Your task to perform on an android device: open app "Google Find My Device" Image 0: 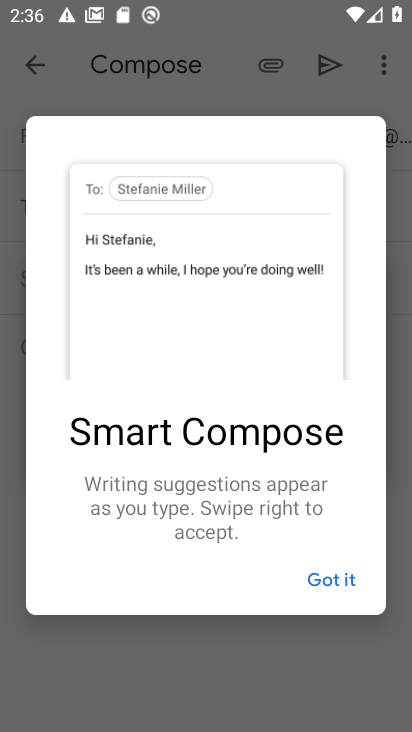
Step 0: press back button
Your task to perform on an android device: open app "Google Find My Device" Image 1: 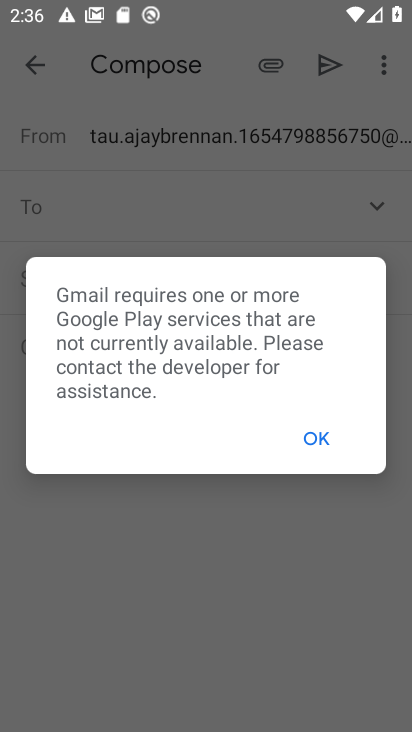
Step 1: press home button
Your task to perform on an android device: open app "Google Find My Device" Image 2: 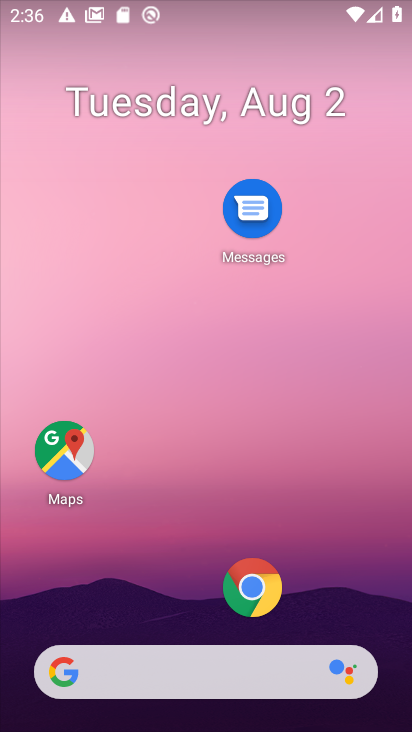
Step 2: drag from (168, 614) to (171, 211)
Your task to perform on an android device: open app "Google Find My Device" Image 3: 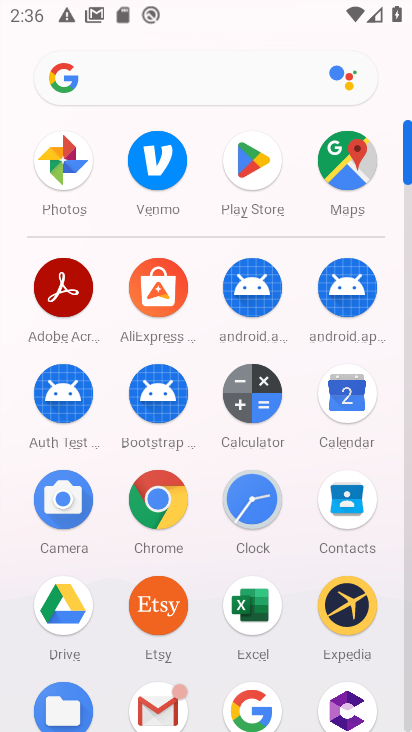
Step 3: click (259, 166)
Your task to perform on an android device: open app "Google Find My Device" Image 4: 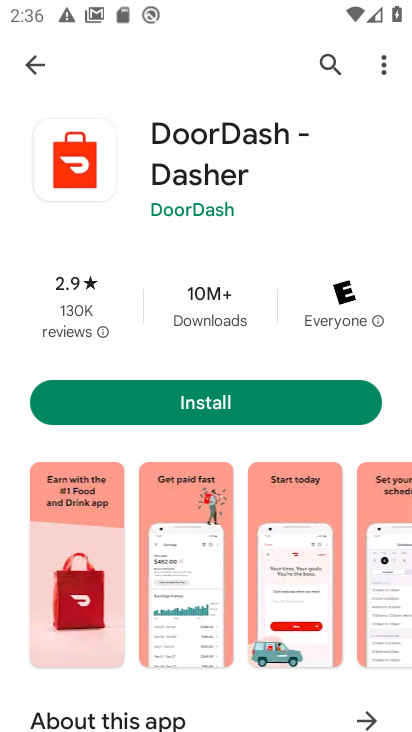
Step 4: click (329, 62)
Your task to perform on an android device: open app "Google Find My Device" Image 5: 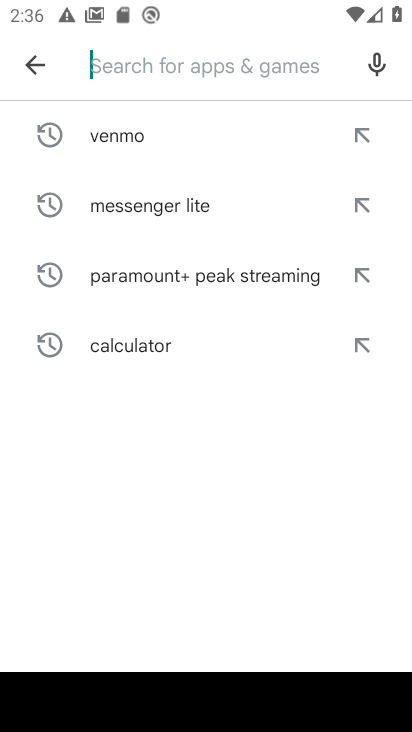
Step 5: type "Google Find My Device"
Your task to perform on an android device: open app "Google Find My Device" Image 6: 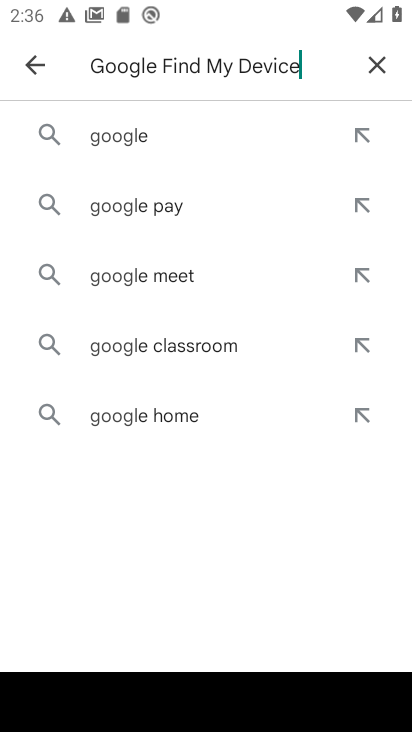
Step 6: type ""
Your task to perform on an android device: open app "Google Find My Device" Image 7: 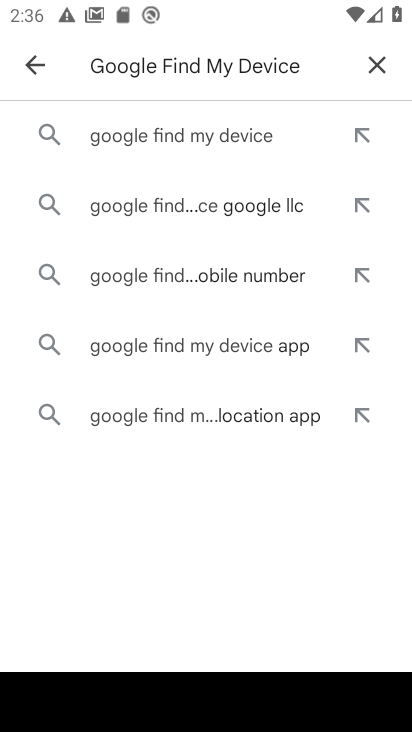
Step 7: click (249, 131)
Your task to perform on an android device: open app "Google Find My Device" Image 8: 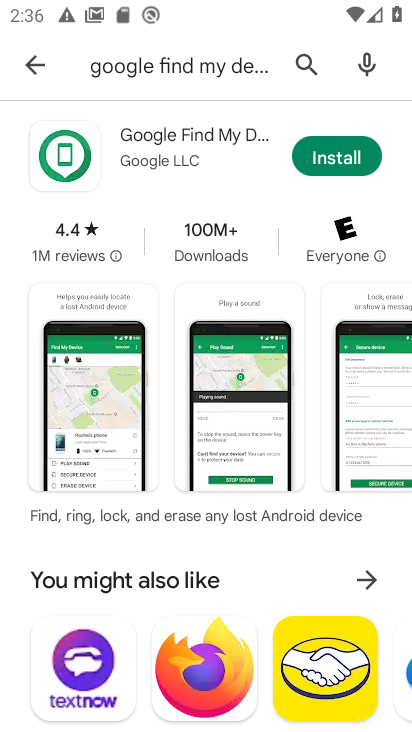
Step 8: task complete